Your task to perform on an android device: turn on bluetooth scan Image 0: 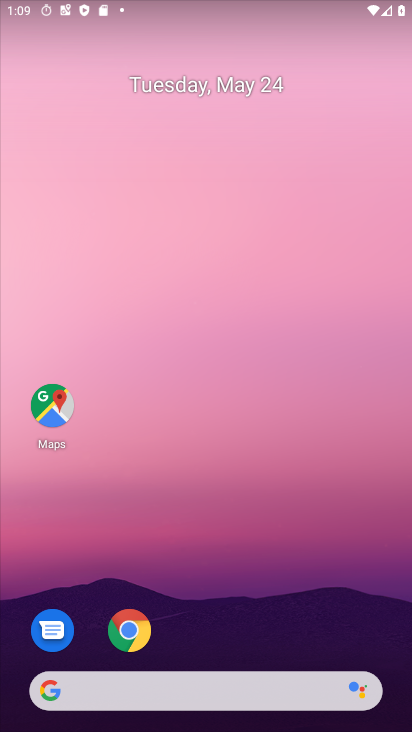
Step 0: drag from (247, 604) to (181, 0)
Your task to perform on an android device: turn on bluetooth scan Image 1: 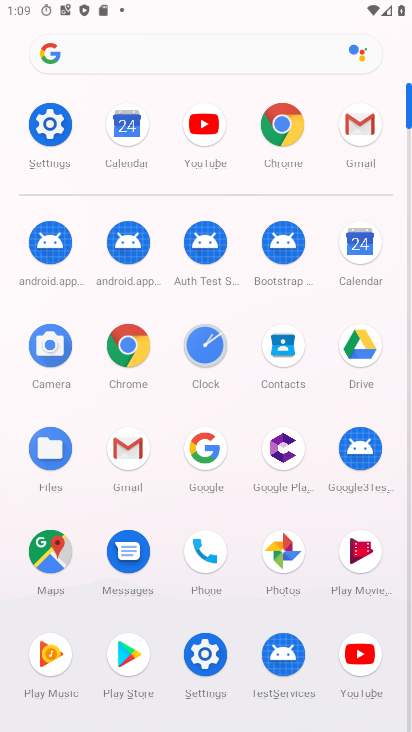
Step 1: click (54, 128)
Your task to perform on an android device: turn on bluetooth scan Image 2: 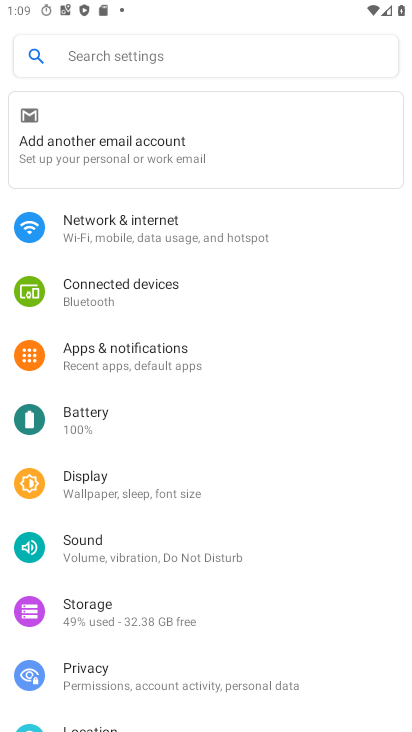
Step 2: drag from (306, 569) to (312, 423)
Your task to perform on an android device: turn on bluetooth scan Image 3: 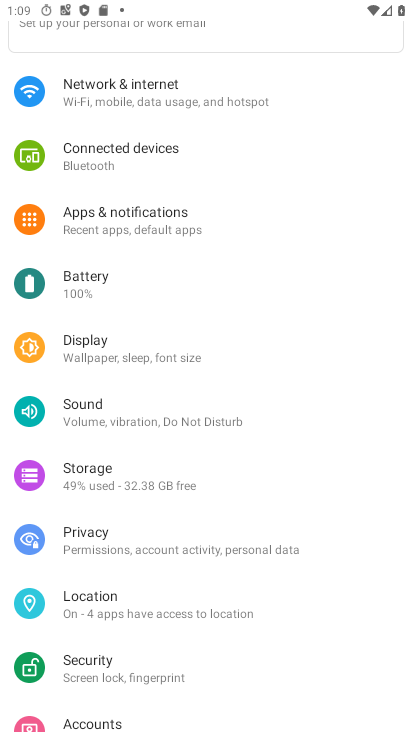
Step 3: click (97, 607)
Your task to perform on an android device: turn on bluetooth scan Image 4: 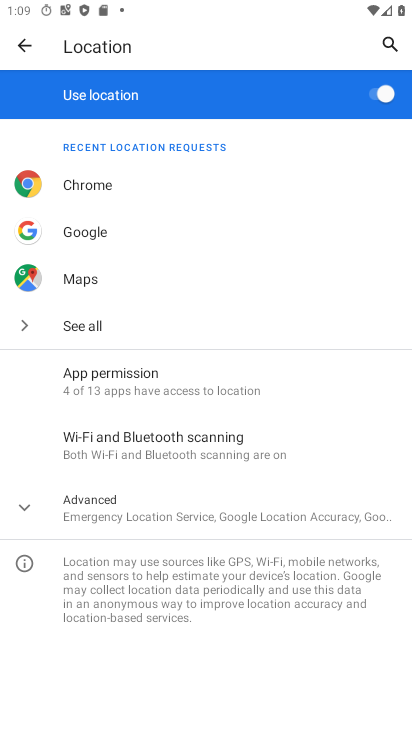
Step 4: click (107, 441)
Your task to perform on an android device: turn on bluetooth scan Image 5: 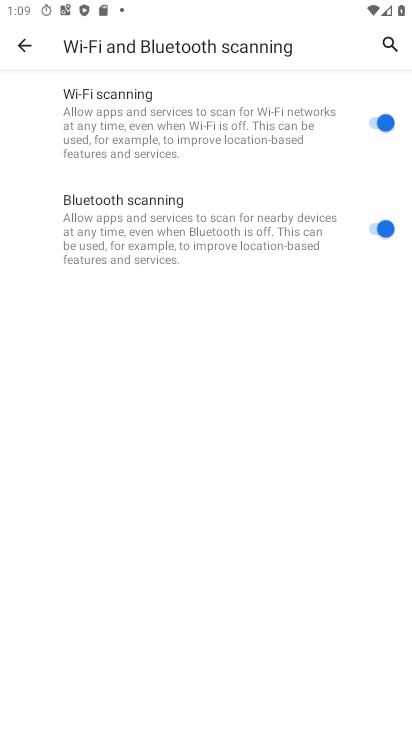
Step 5: task complete